Your task to perform on an android device: change the clock style Image 0: 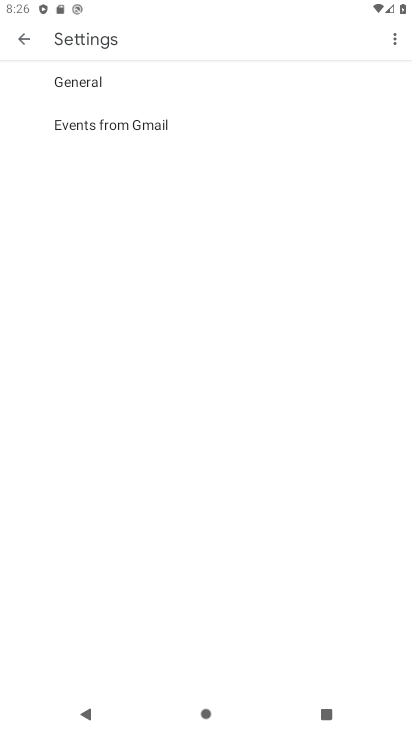
Step 0: press back button
Your task to perform on an android device: change the clock style Image 1: 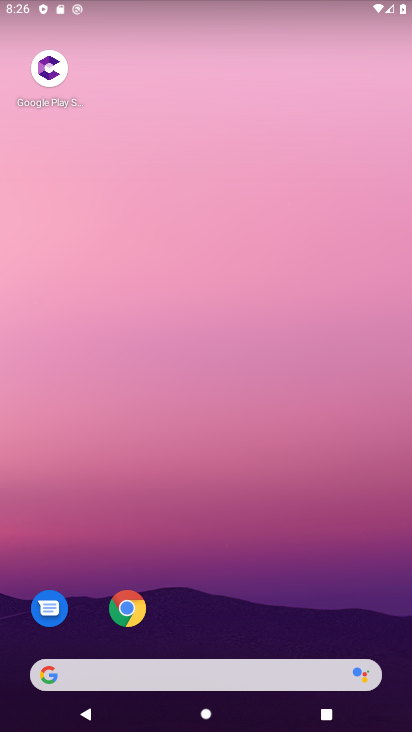
Step 1: drag from (249, 630) to (288, 137)
Your task to perform on an android device: change the clock style Image 2: 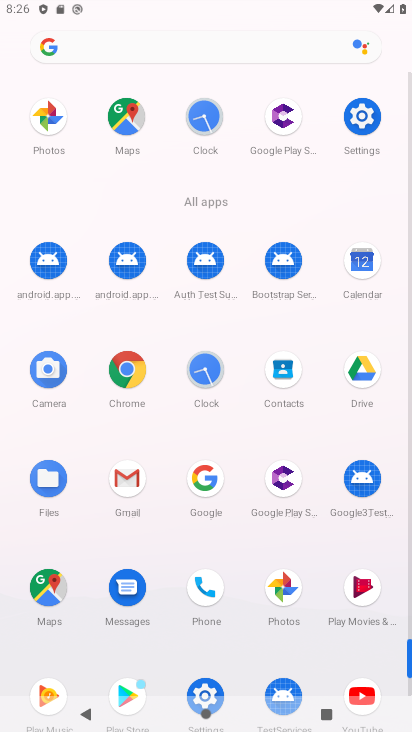
Step 2: click (201, 372)
Your task to perform on an android device: change the clock style Image 3: 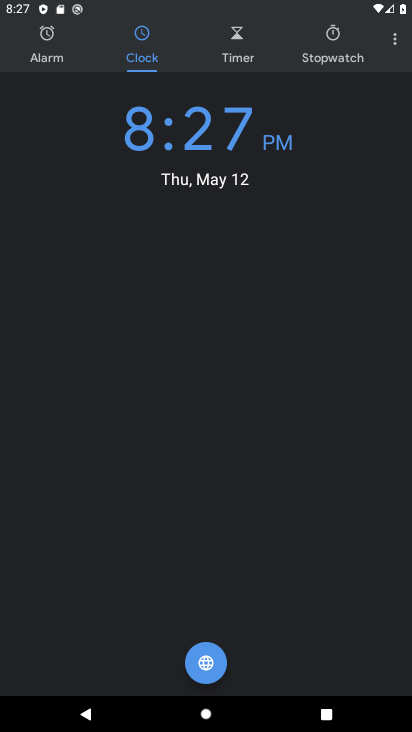
Step 3: click (396, 25)
Your task to perform on an android device: change the clock style Image 4: 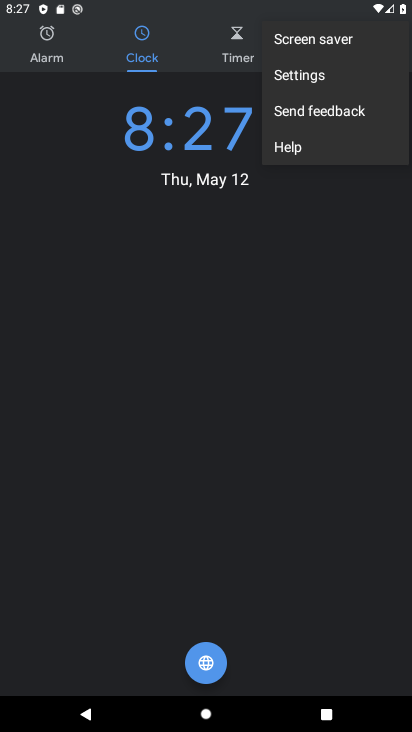
Step 4: click (332, 78)
Your task to perform on an android device: change the clock style Image 5: 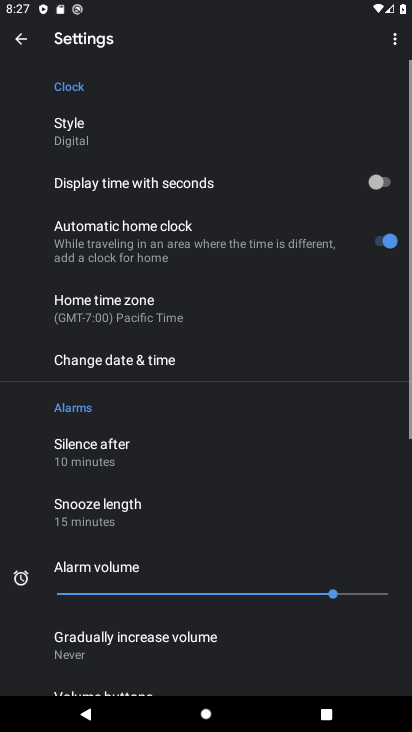
Step 5: click (159, 137)
Your task to perform on an android device: change the clock style Image 6: 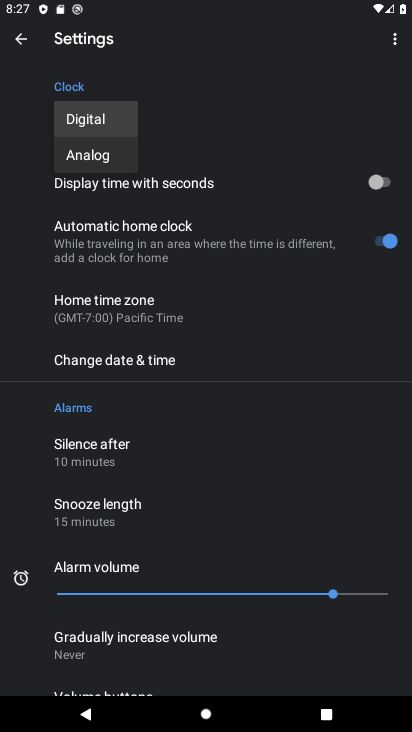
Step 6: click (91, 153)
Your task to perform on an android device: change the clock style Image 7: 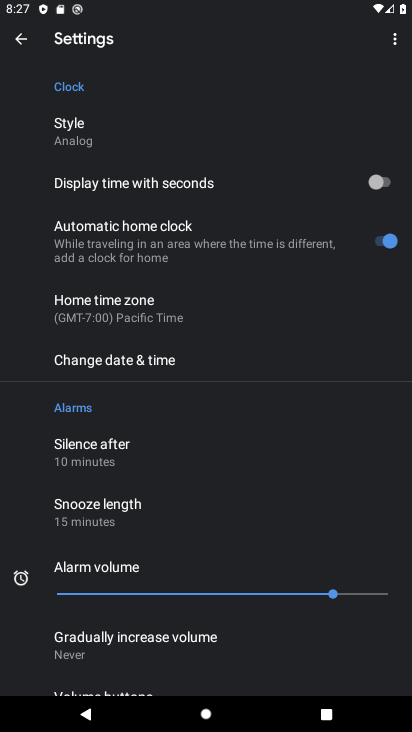
Step 7: task complete